Your task to perform on an android device: Open Chrome and go to the settings page Image 0: 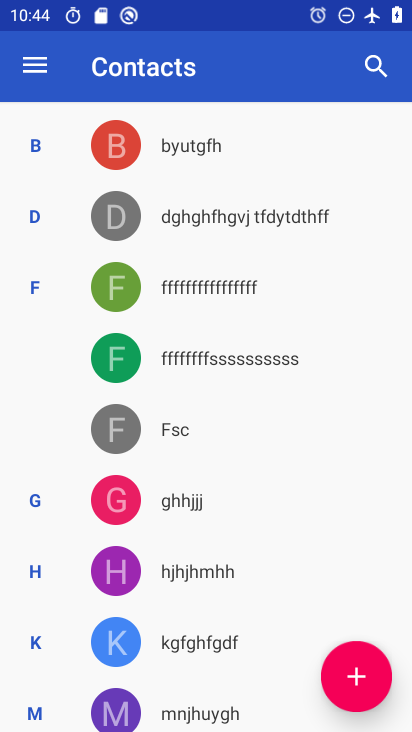
Step 0: press home button
Your task to perform on an android device: Open Chrome and go to the settings page Image 1: 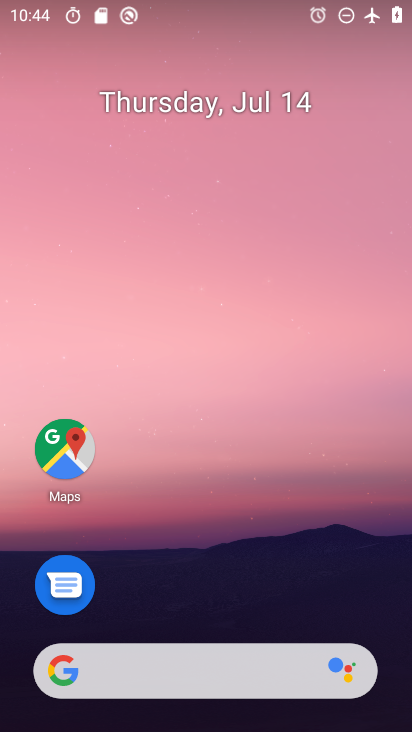
Step 1: drag from (233, 634) to (180, 189)
Your task to perform on an android device: Open Chrome and go to the settings page Image 2: 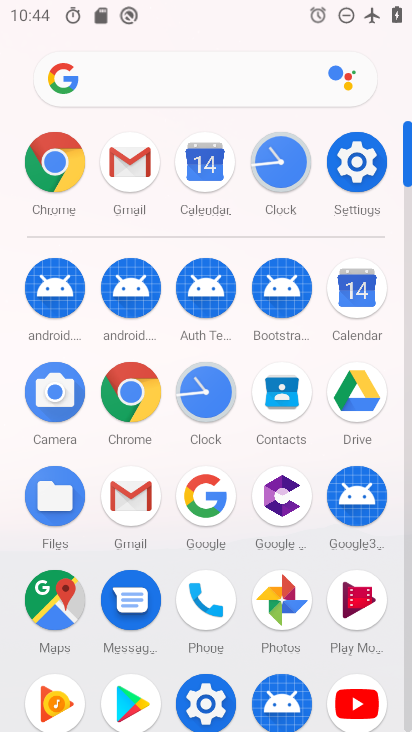
Step 2: click (45, 181)
Your task to perform on an android device: Open Chrome and go to the settings page Image 3: 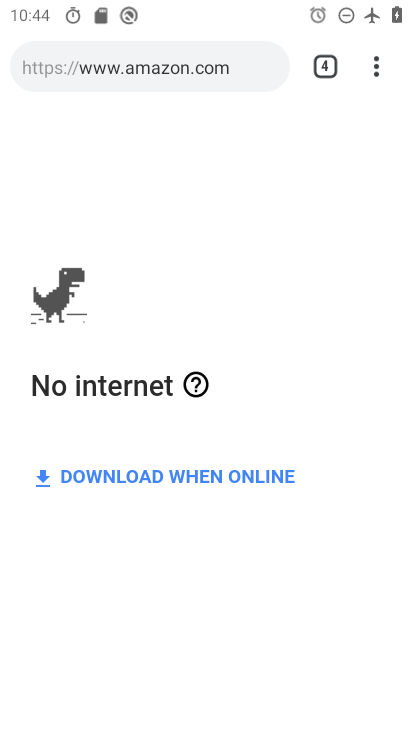
Step 3: click (377, 69)
Your task to perform on an android device: Open Chrome and go to the settings page Image 4: 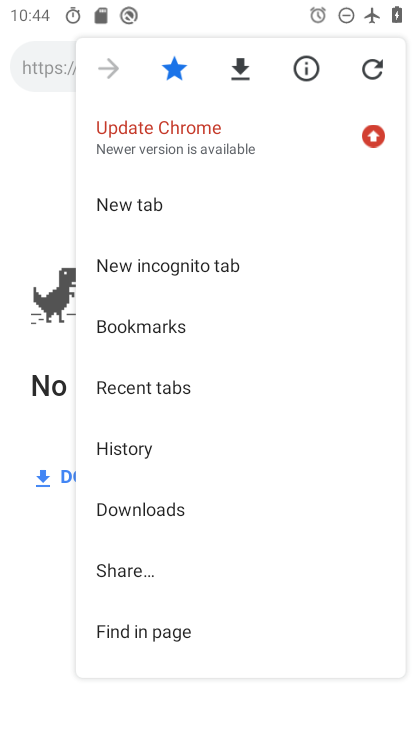
Step 4: drag from (222, 525) to (188, 0)
Your task to perform on an android device: Open Chrome and go to the settings page Image 5: 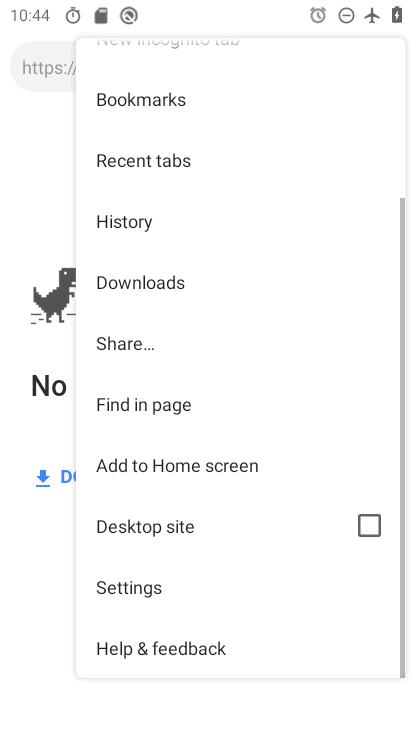
Step 5: click (119, 591)
Your task to perform on an android device: Open Chrome and go to the settings page Image 6: 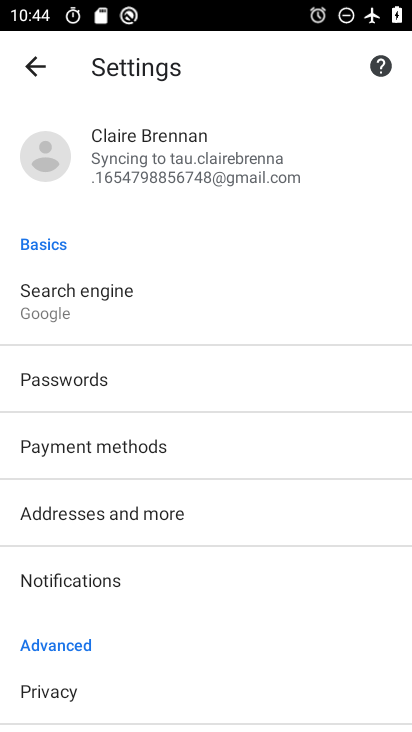
Step 6: task complete